Your task to perform on an android device: toggle data saver in the chrome app Image 0: 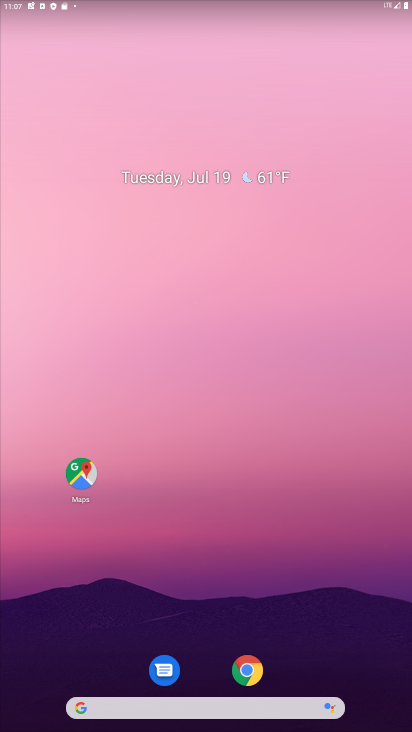
Step 0: drag from (163, 727) to (269, 144)
Your task to perform on an android device: toggle data saver in the chrome app Image 1: 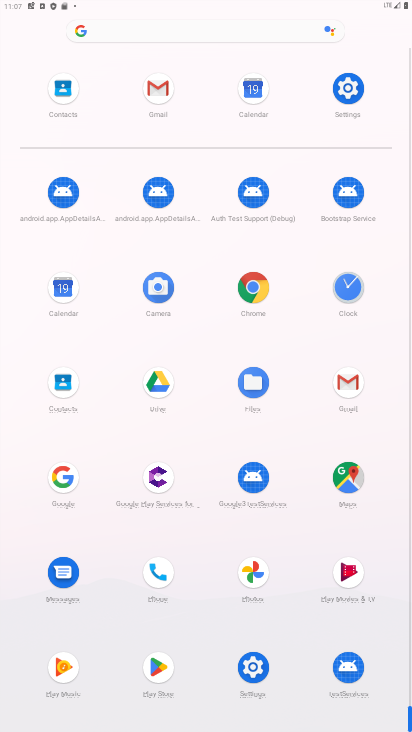
Step 1: click (253, 293)
Your task to perform on an android device: toggle data saver in the chrome app Image 2: 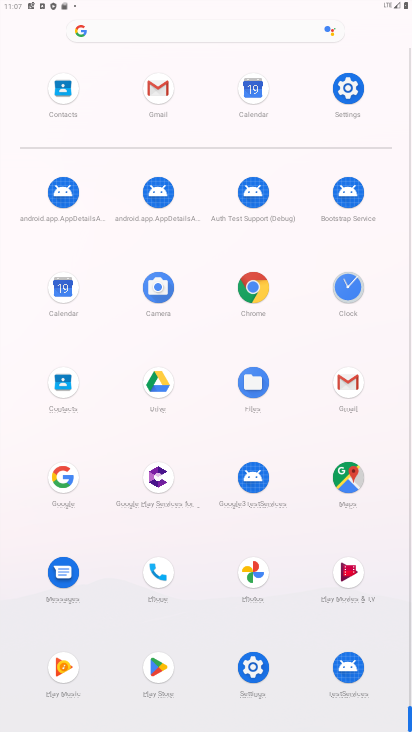
Step 2: click (253, 293)
Your task to perform on an android device: toggle data saver in the chrome app Image 3: 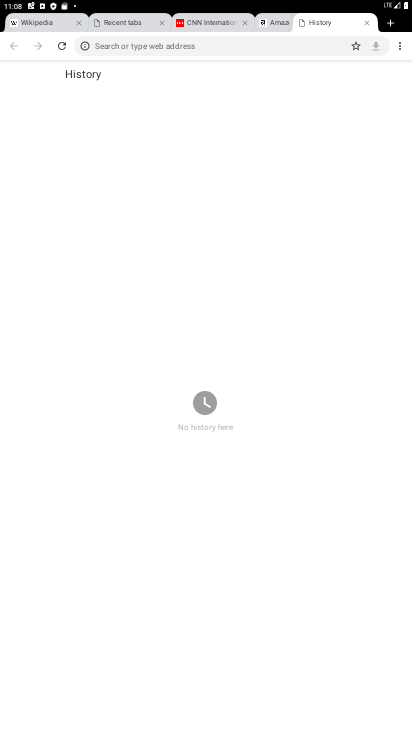
Step 3: click (399, 43)
Your task to perform on an android device: toggle data saver in the chrome app Image 4: 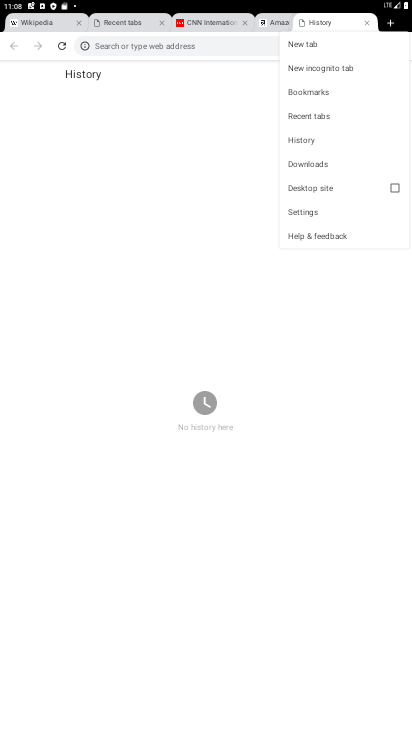
Step 4: click (317, 212)
Your task to perform on an android device: toggle data saver in the chrome app Image 5: 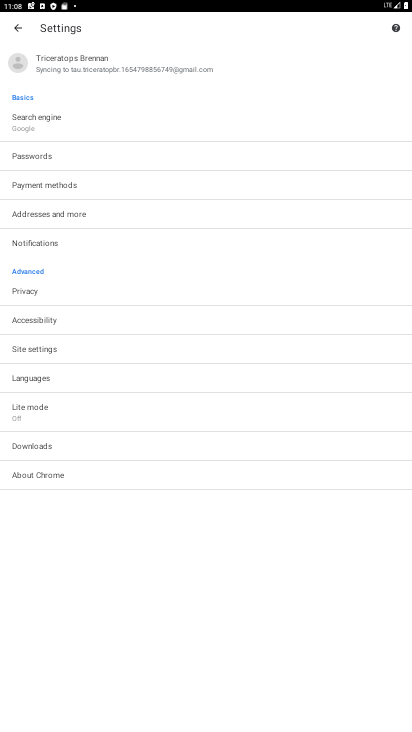
Step 5: click (55, 412)
Your task to perform on an android device: toggle data saver in the chrome app Image 6: 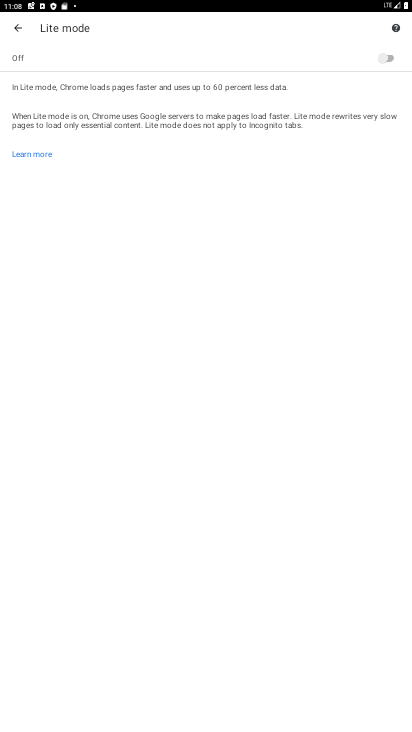
Step 6: click (386, 61)
Your task to perform on an android device: toggle data saver in the chrome app Image 7: 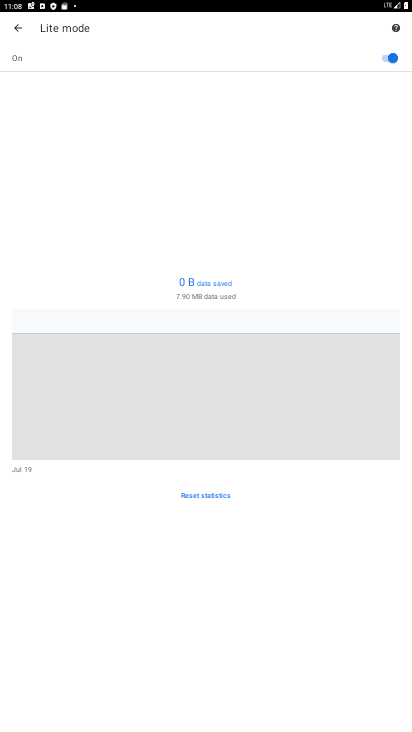
Step 7: task complete